Your task to perform on an android device: open app "Google Duo" Image 0: 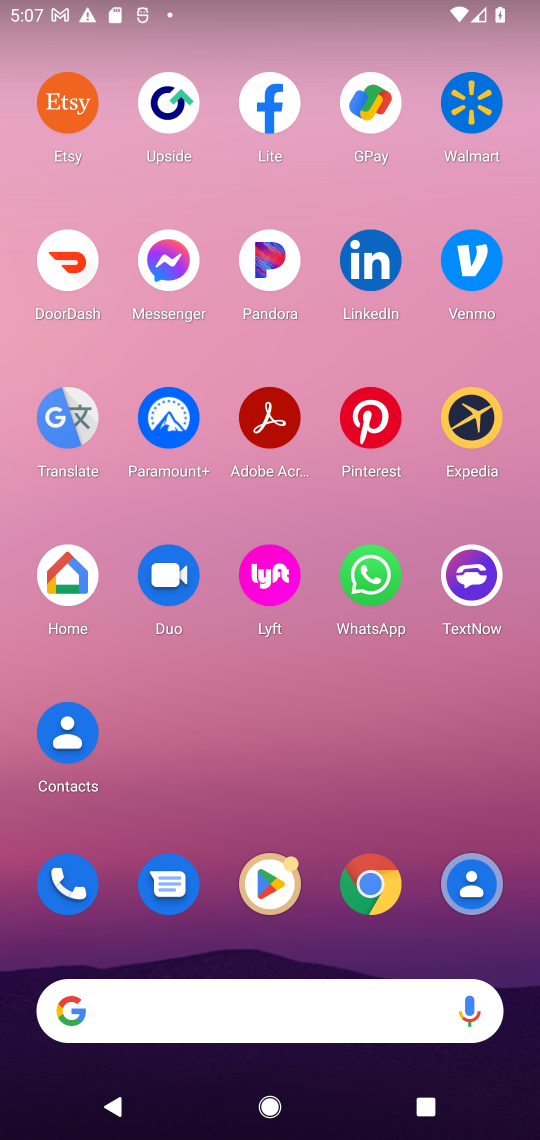
Step 0: click (274, 888)
Your task to perform on an android device: open app "Google Duo" Image 1: 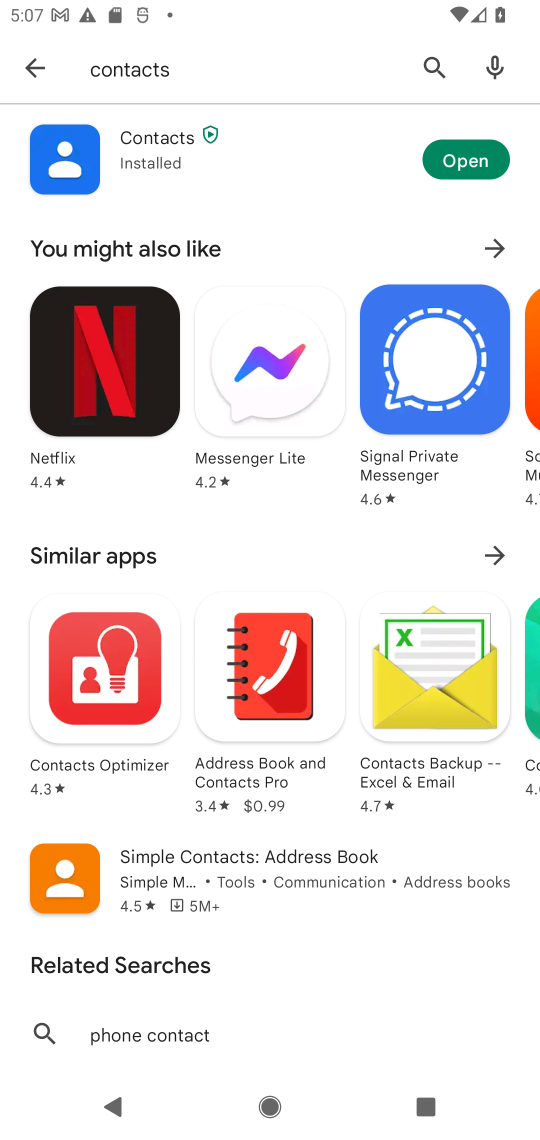
Step 1: click (29, 65)
Your task to perform on an android device: open app "Google Duo" Image 2: 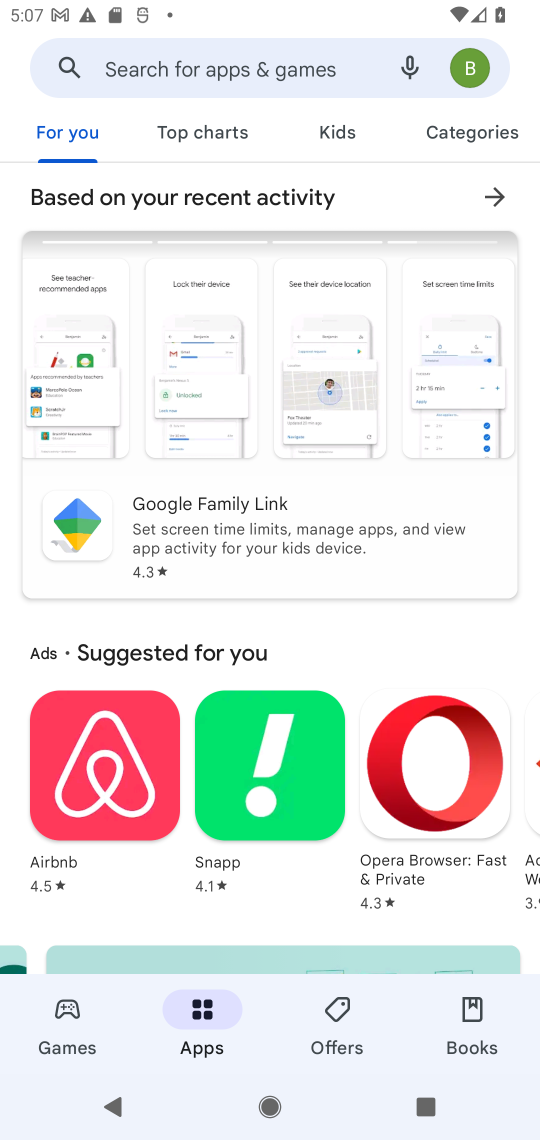
Step 2: click (242, 65)
Your task to perform on an android device: open app "Google Duo" Image 3: 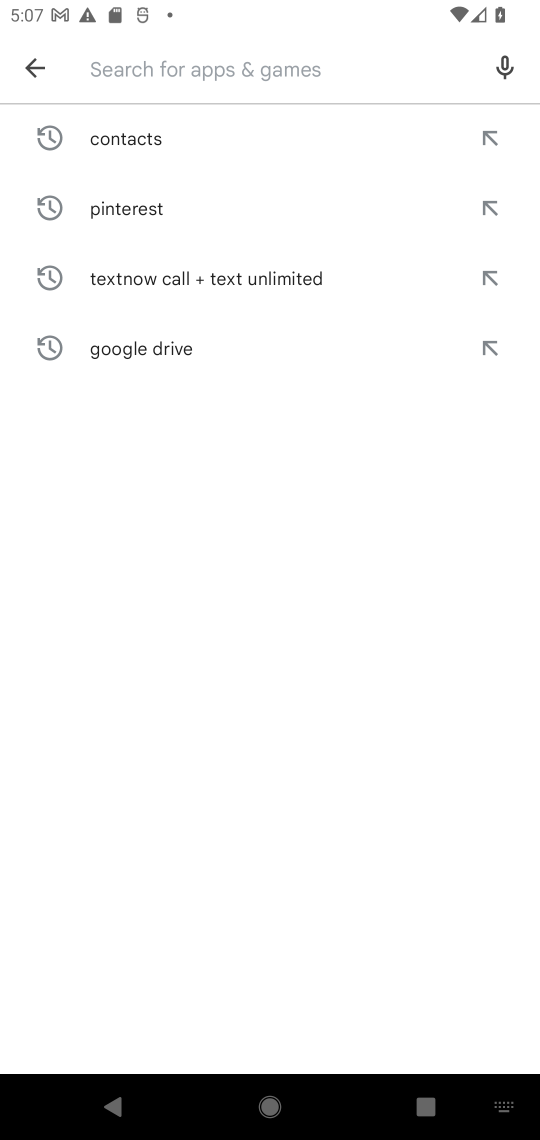
Step 3: type "Google Duo"
Your task to perform on an android device: open app "Google Duo" Image 4: 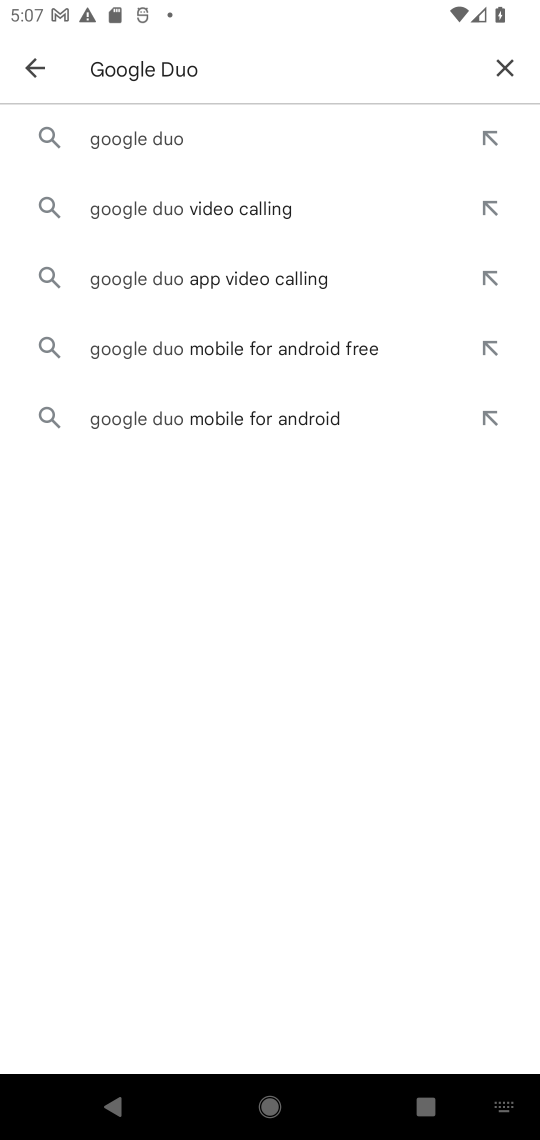
Step 4: click (157, 134)
Your task to perform on an android device: open app "Google Duo" Image 5: 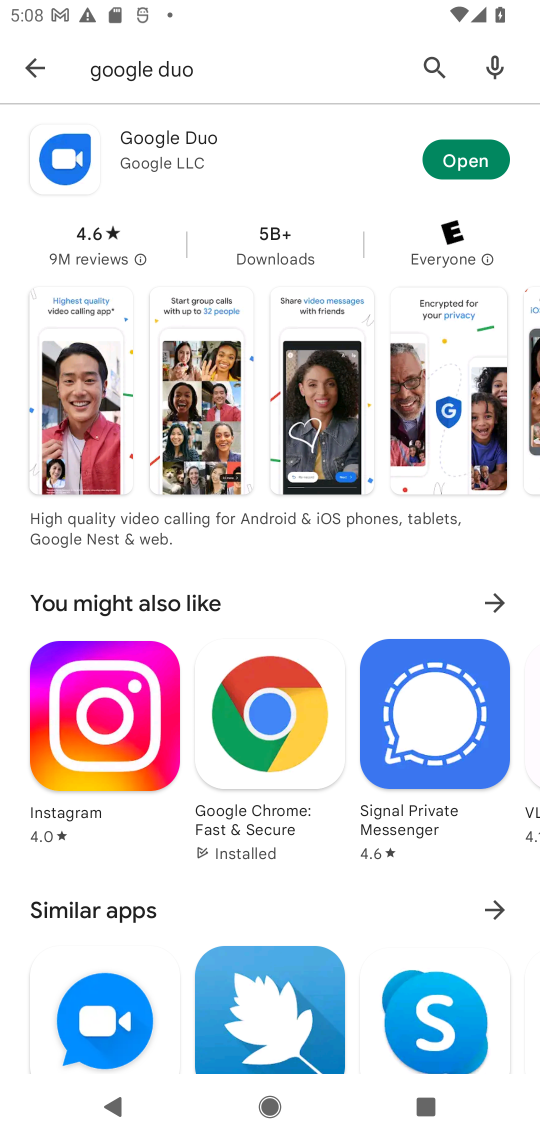
Step 5: click (473, 165)
Your task to perform on an android device: open app "Google Duo" Image 6: 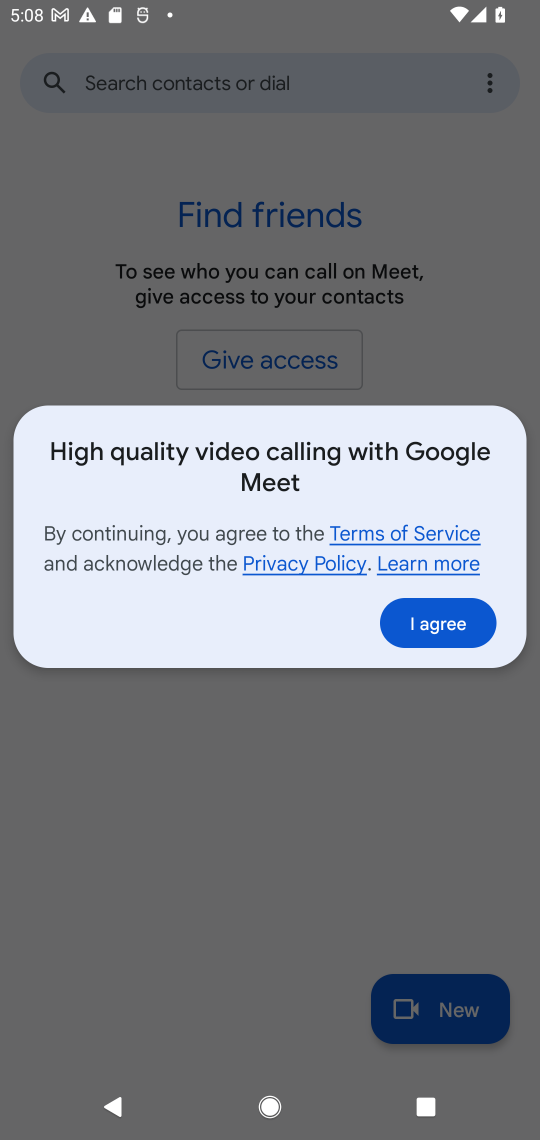
Step 6: click (414, 627)
Your task to perform on an android device: open app "Google Duo" Image 7: 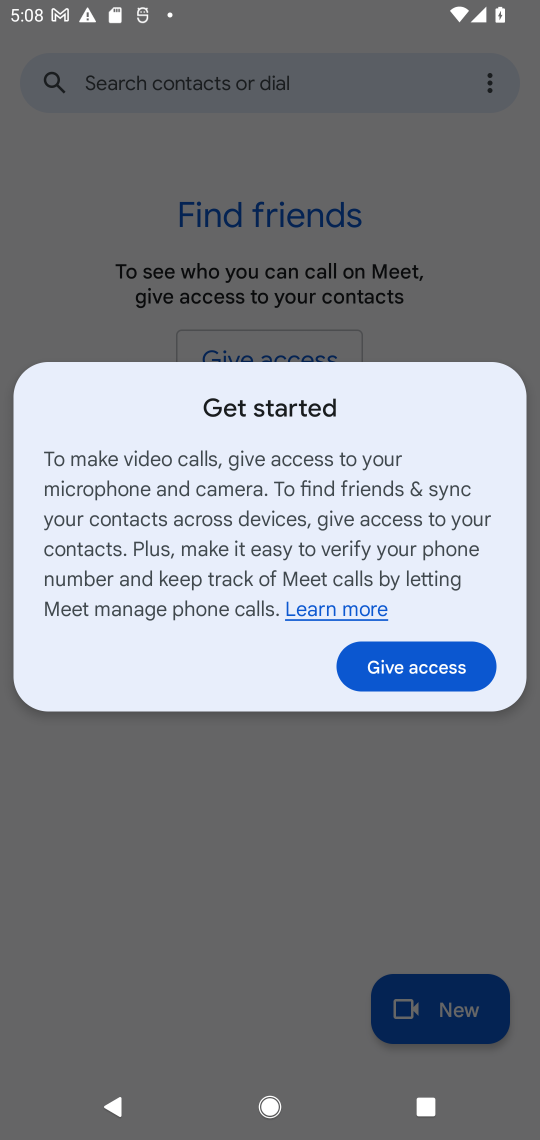
Step 7: click (382, 683)
Your task to perform on an android device: open app "Google Duo" Image 8: 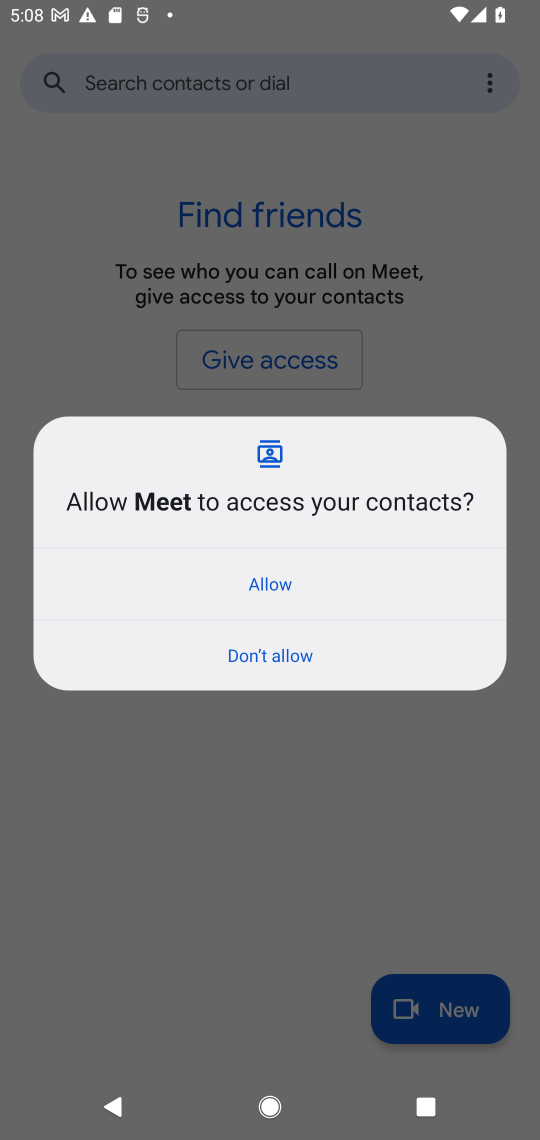
Step 8: click (275, 590)
Your task to perform on an android device: open app "Google Duo" Image 9: 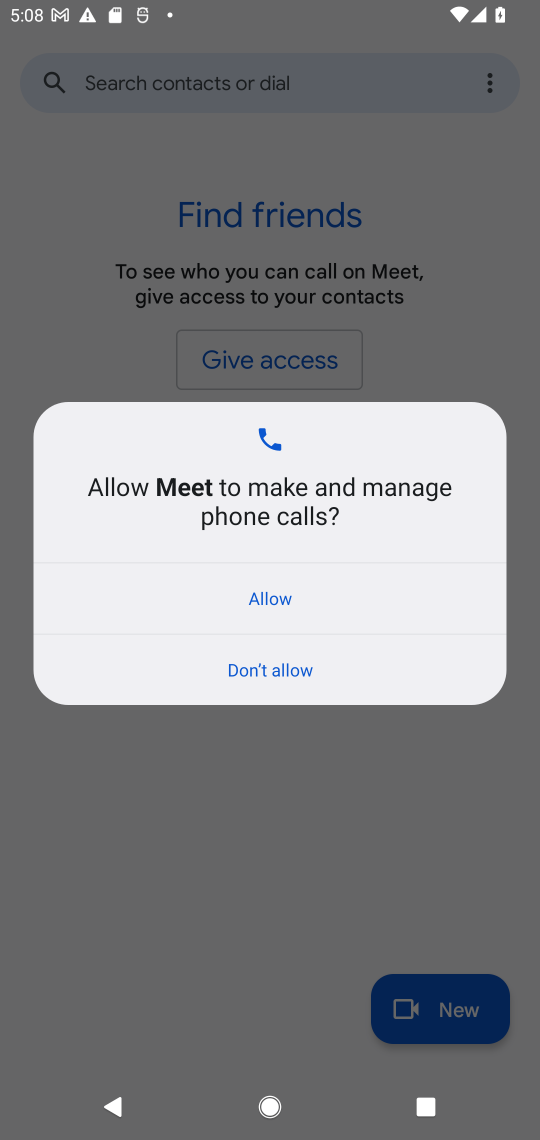
Step 9: click (275, 590)
Your task to perform on an android device: open app "Google Duo" Image 10: 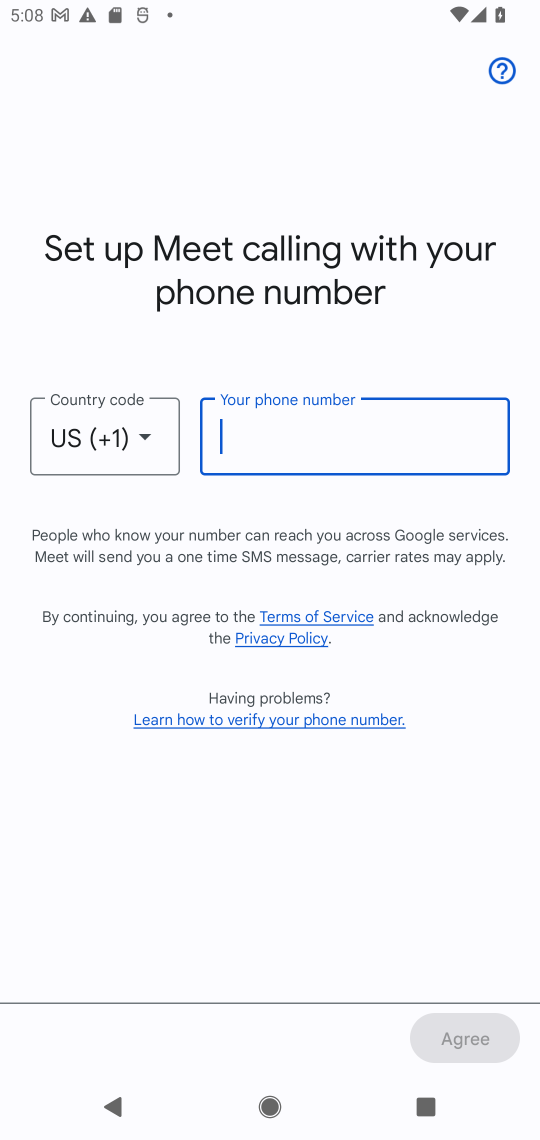
Step 10: task complete